Your task to perform on an android device: Go to Reddit.com Image 0: 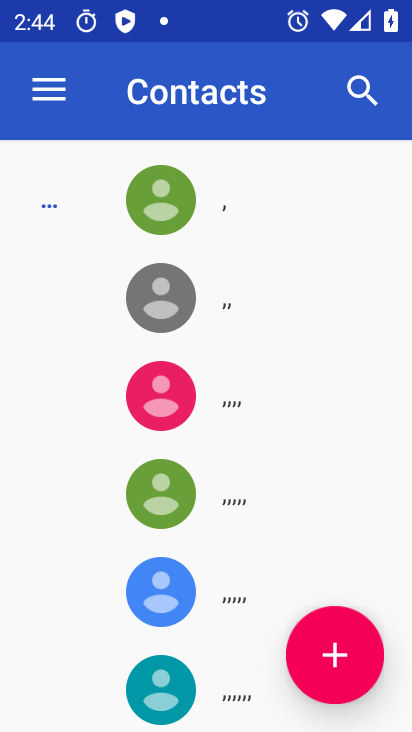
Step 0: press home button
Your task to perform on an android device: Go to Reddit.com Image 1: 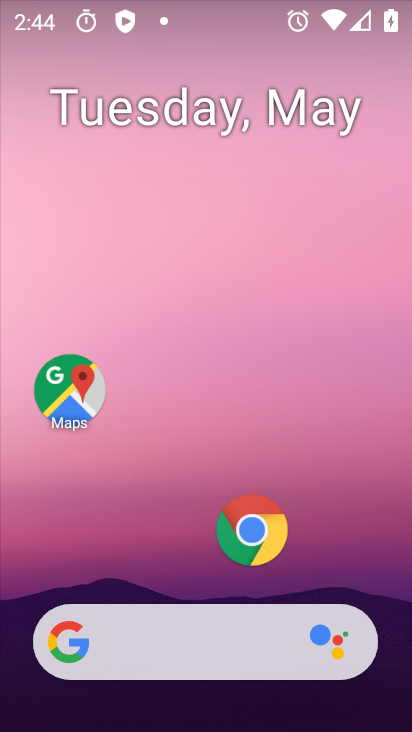
Step 1: drag from (204, 579) to (118, 0)
Your task to perform on an android device: Go to Reddit.com Image 2: 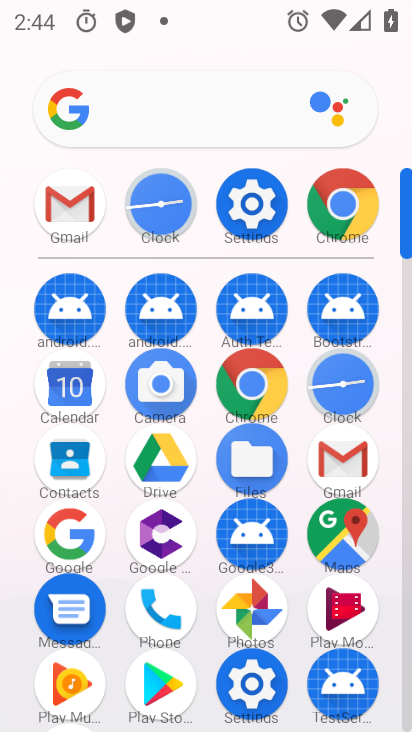
Step 2: click (255, 389)
Your task to perform on an android device: Go to Reddit.com Image 3: 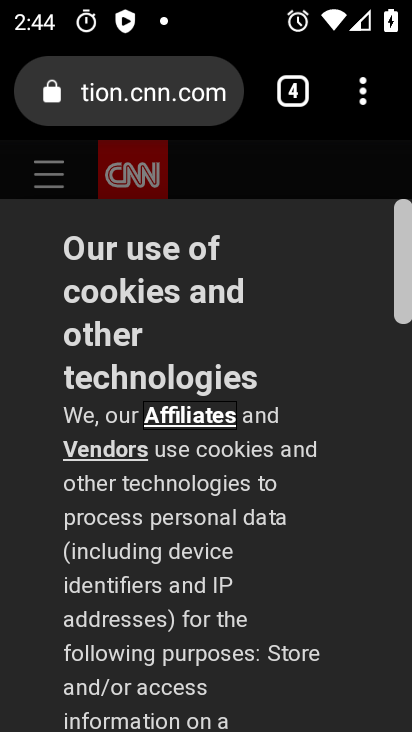
Step 3: click (281, 94)
Your task to perform on an android device: Go to Reddit.com Image 4: 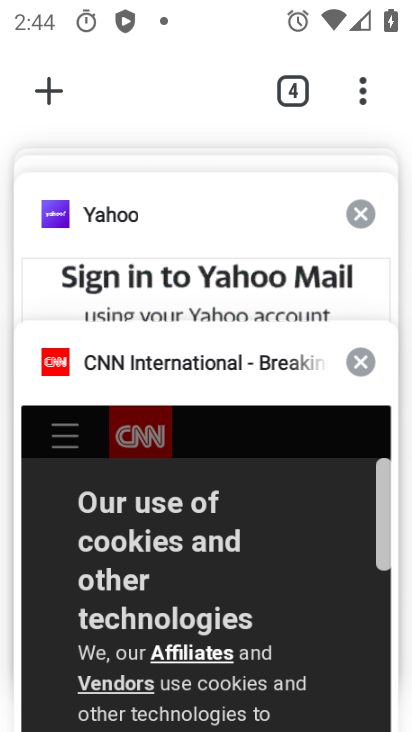
Step 4: click (43, 102)
Your task to perform on an android device: Go to Reddit.com Image 5: 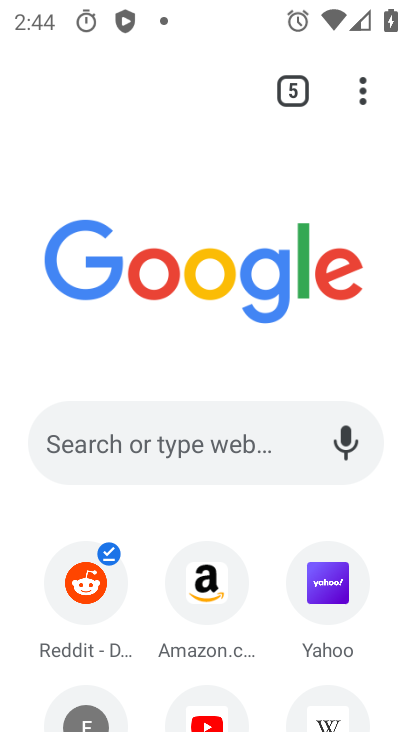
Step 5: click (99, 583)
Your task to perform on an android device: Go to Reddit.com Image 6: 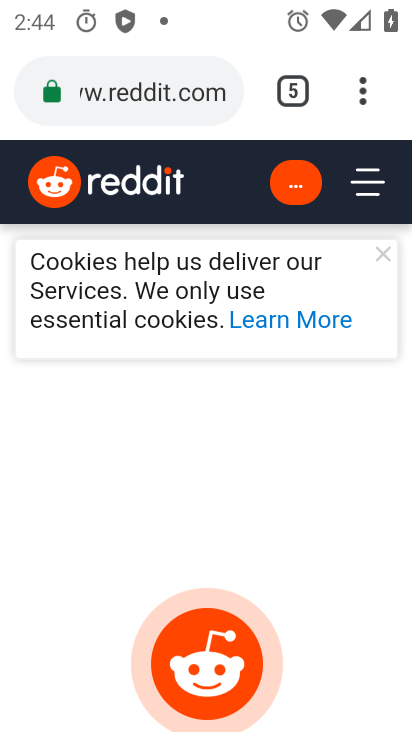
Step 6: task complete